Your task to perform on an android device: turn on translation in the chrome app Image 0: 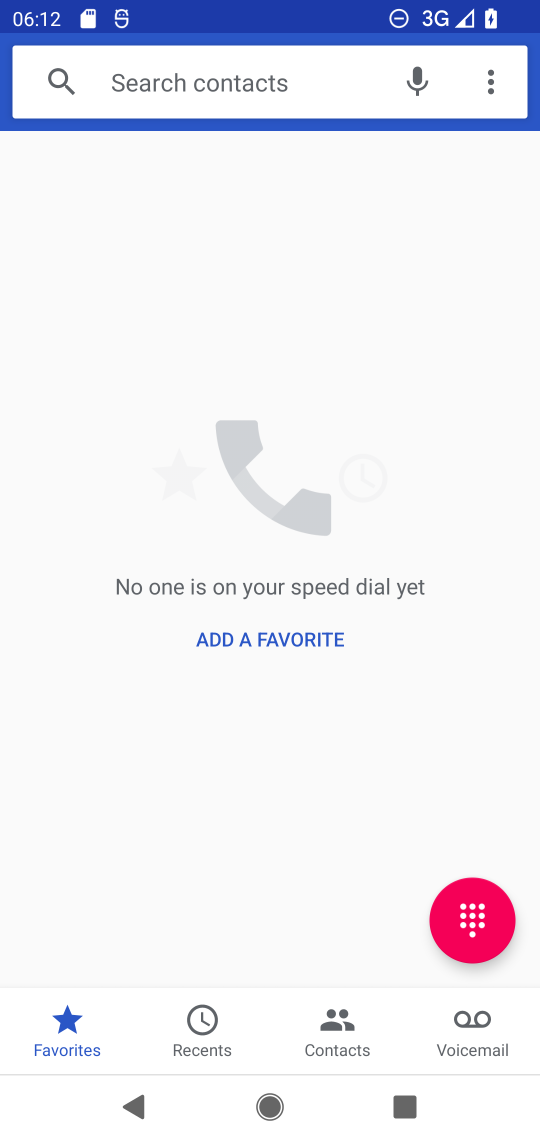
Step 0: press home button
Your task to perform on an android device: turn on translation in the chrome app Image 1: 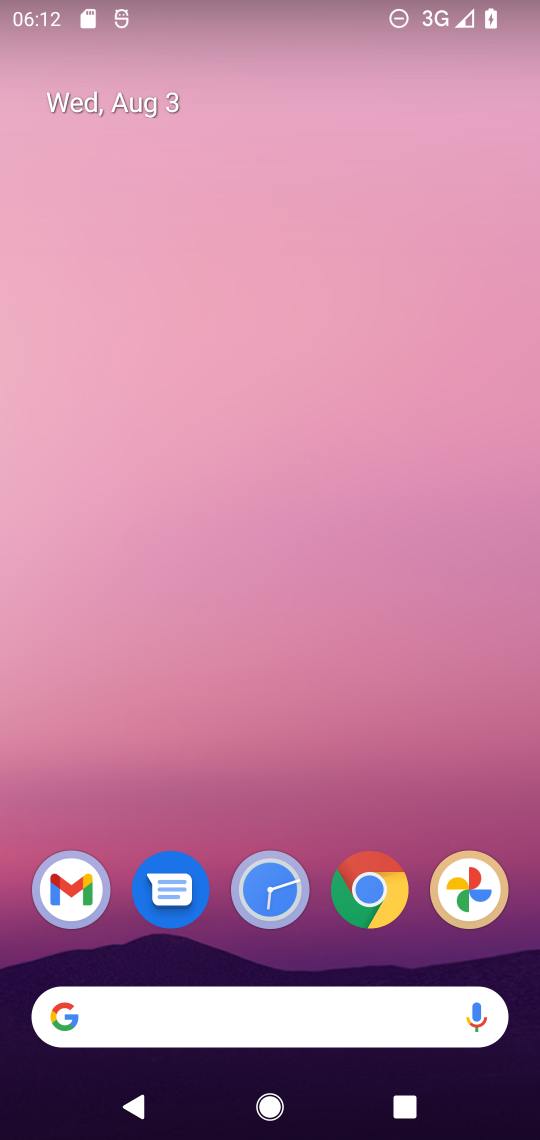
Step 1: click (377, 878)
Your task to perform on an android device: turn on translation in the chrome app Image 2: 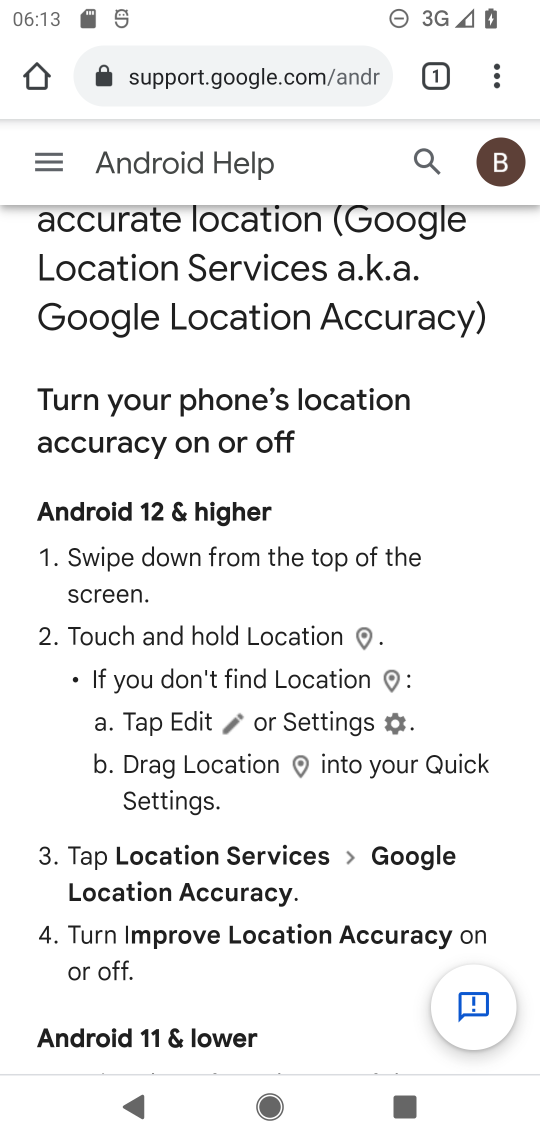
Step 2: click (498, 89)
Your task to perform on an android device: turn on translation in the chrome app Image 3: 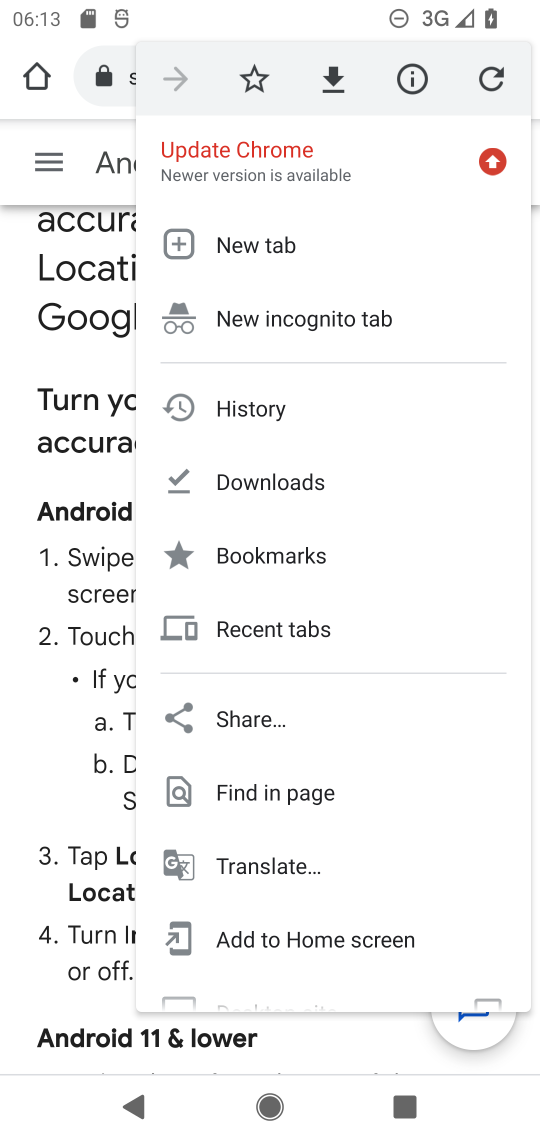
Step 3: drag from (318, 864) to (374, 239)
Your task to perform on an android device: turn on translation in the chrome app Image 4: 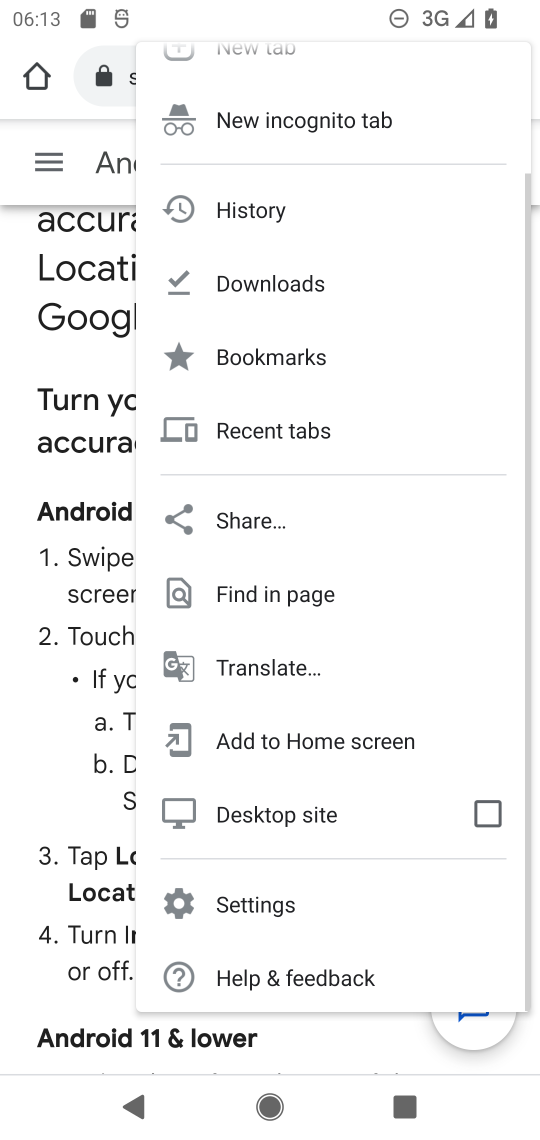
Step 4: click (289, 909)
Your task to perform on an android device: turn on translation in the chrome app Image 5: 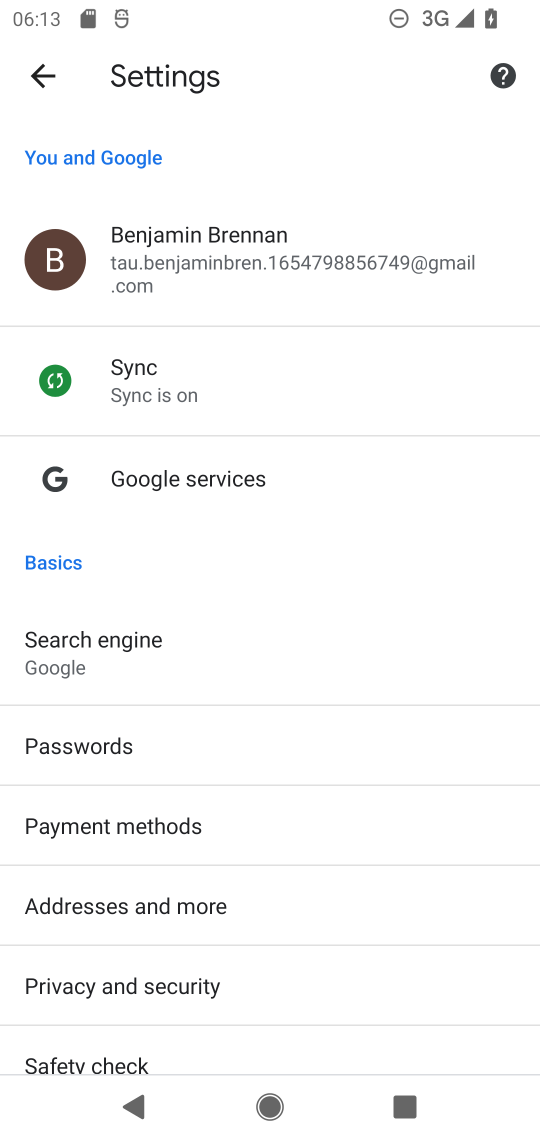
Step 5: drag from (296, 881) to (401, 273)
Your task to perform on an android device: turn on translation in the chrome app Image 6: 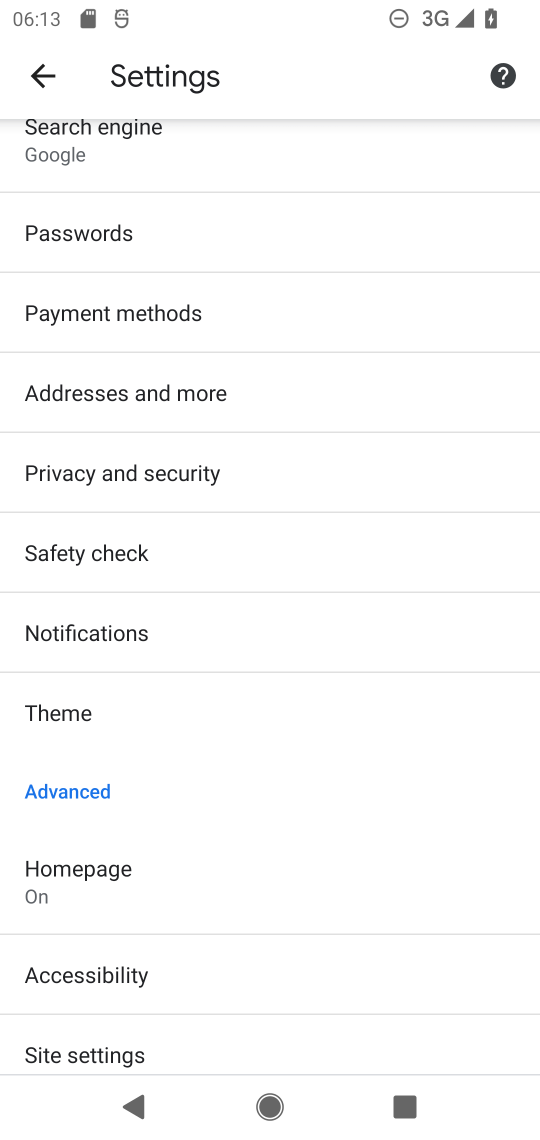
Step 6: drag from (269, 865) to (353, 242)
Your task to perform on an android device: turn on translation in the chrome app Image 7: 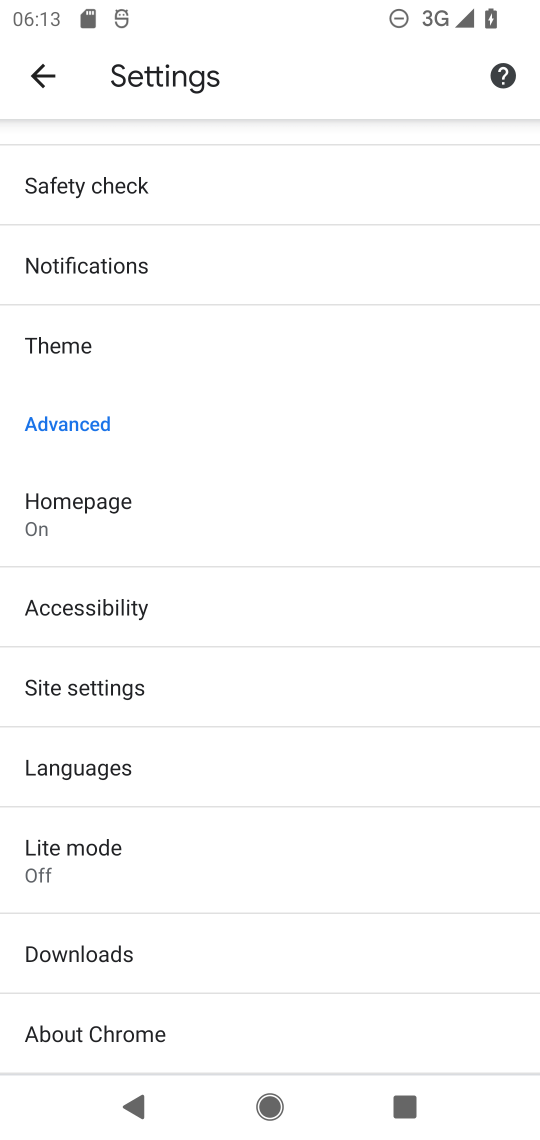
Step 7: click (104, 764)
Your task to perform on an android device: turn on translation in the chrome app Image 8: 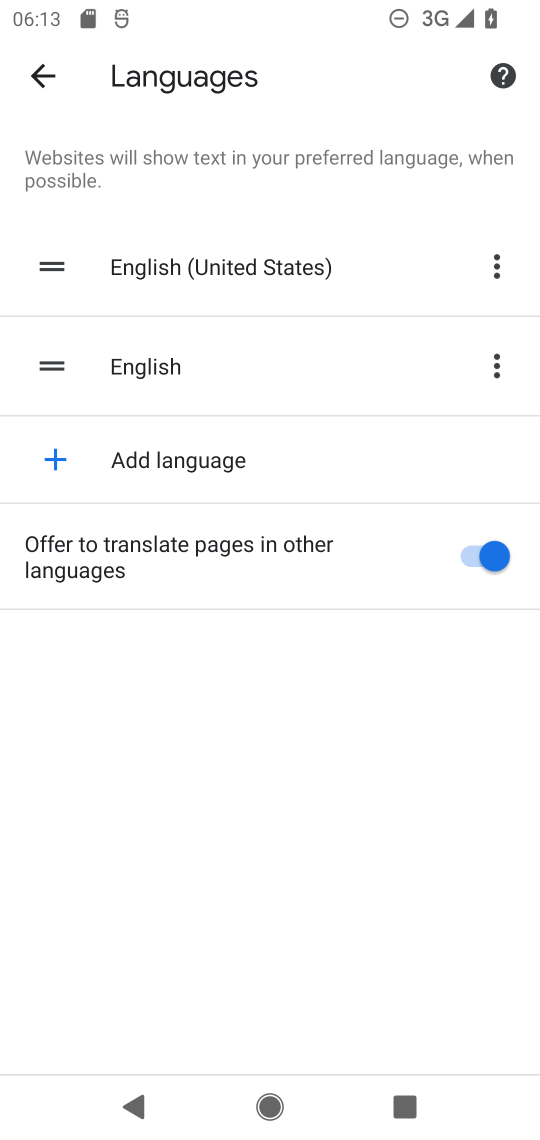
Step 8: task complete